Your task to perform on an android device: turn off smart reply in the gmail app Image 0: 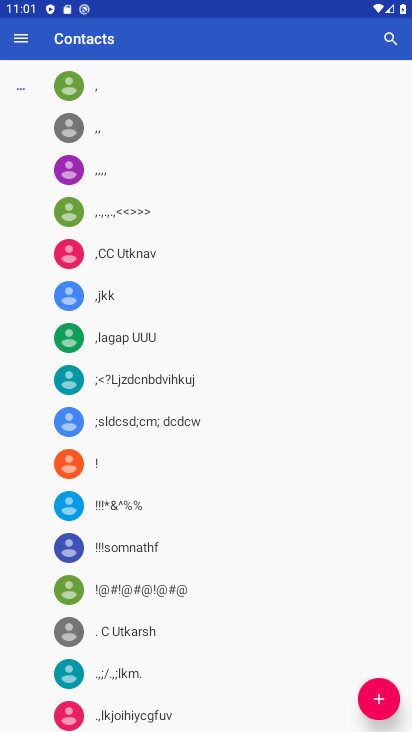
Step 0: press home button
Your task to perform on an android device: turn off smart reply in the gmail app Image 1: 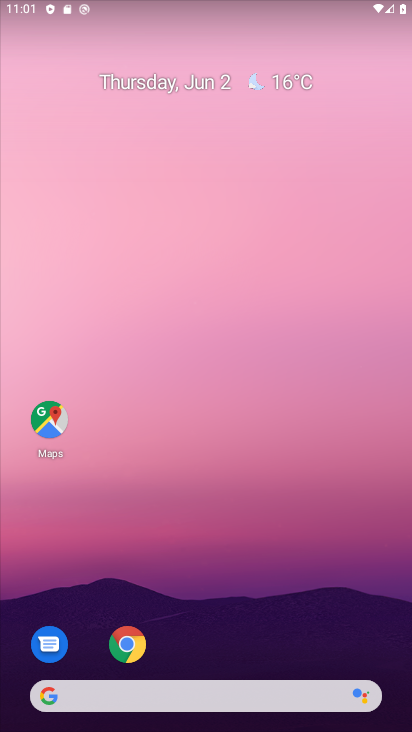
Step 1: drag from (170, 651) to (312, 232)
Your task to perform on an android device: turn off smart reply in the gmail app Image 2: 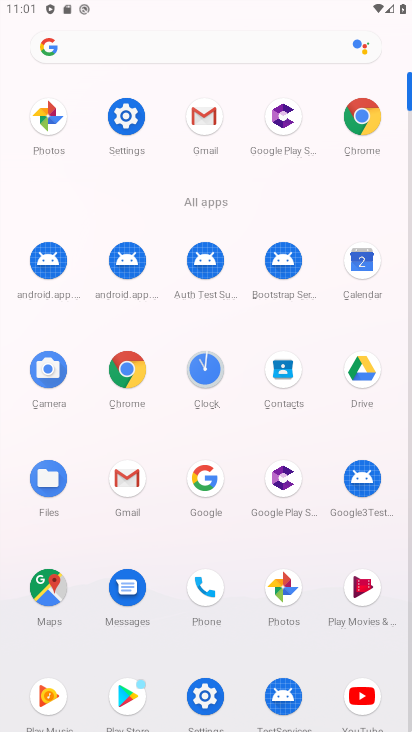
Step 2: click (217, 127)
Your task to perform on an android device: turn off smart reply in the gmail app Image 3: 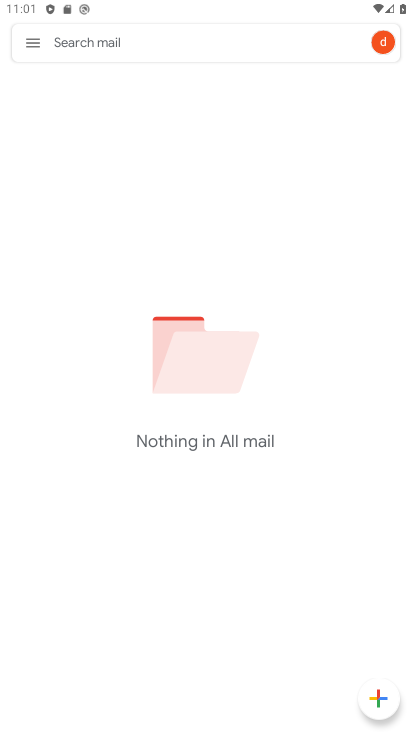
Step 3: click (36, 42)
Your task to perform on an android device: turn off smart reply in the gmail app Image 4: 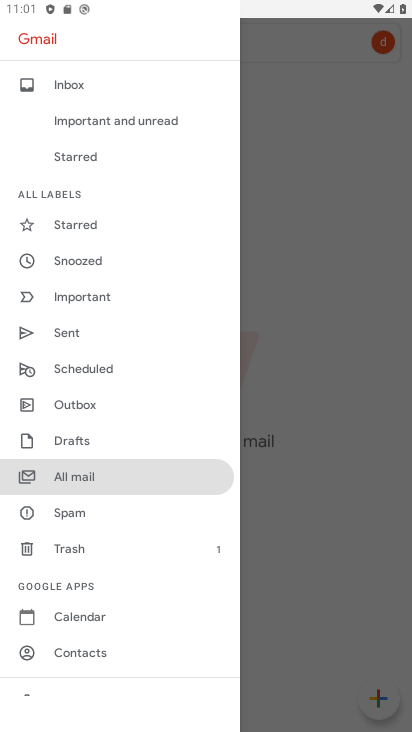
Step 4: drag from (81, 614) to (220, 166)
Your task to perform on an android device: turn off smart reply in the gmail app Image 5: 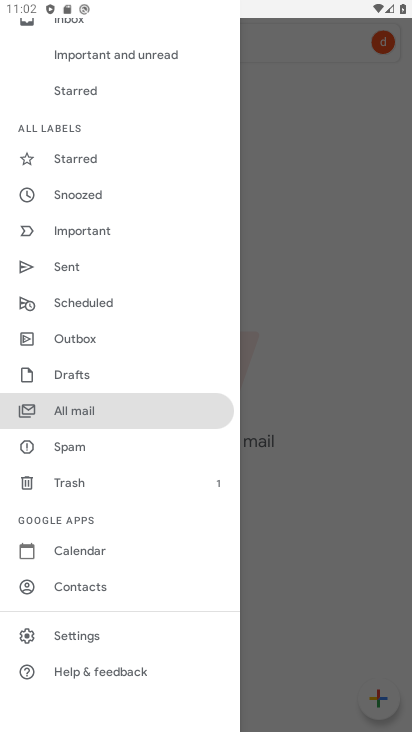
Step 5: click (53, 636)
Your task to perform on an android device: turn off smart reply in the gmail app Image 6: 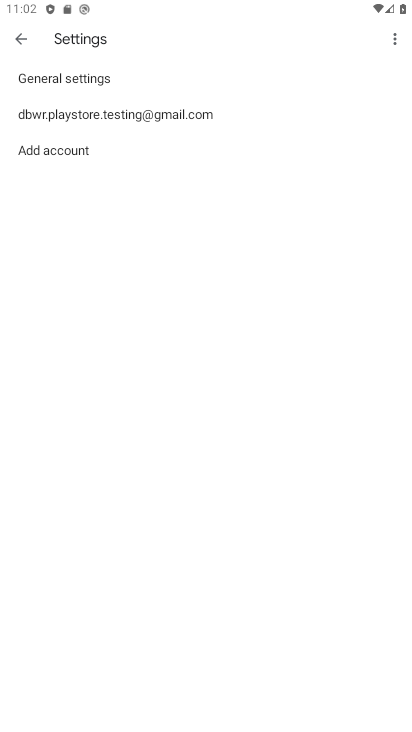
Step 6: click (98, 110)
Your task to perform on an android device: turn off smart reply in the gmail app Image 7: 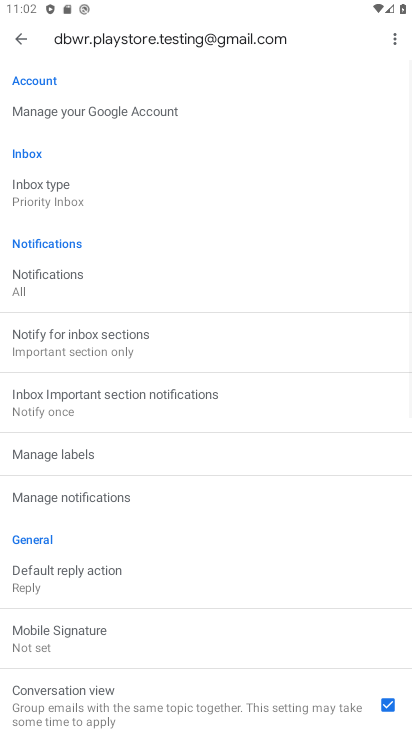
Step 7: drag from (109, 544) to (184, 157)
Your task to perform on an android device: turn off smart reply in the gmail app Image 8: 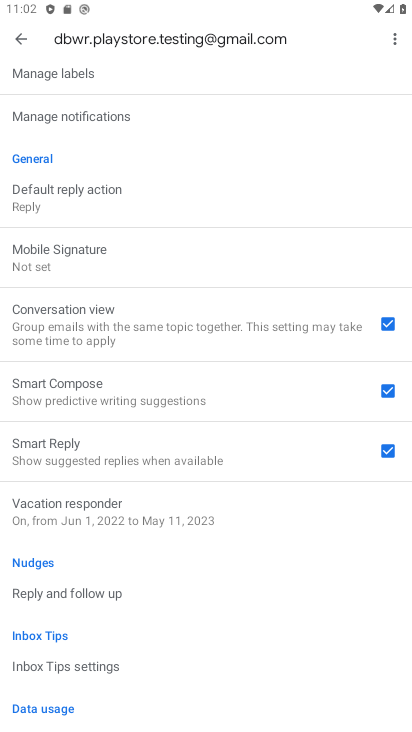
Step 8: drag from (91, 673) to (212, 278)
Your task to perform on an android device: turn off smart reply in the gmail app Image 9: 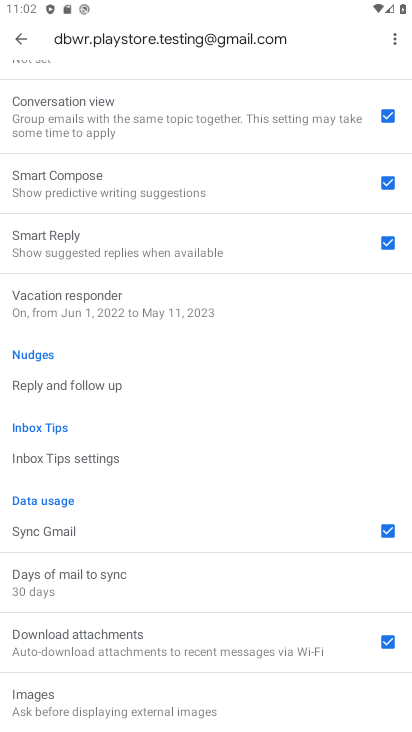
Step 9: click (391, 241)
Your task to perform on an android device: turn off smart reply in the gmail app Image 10: 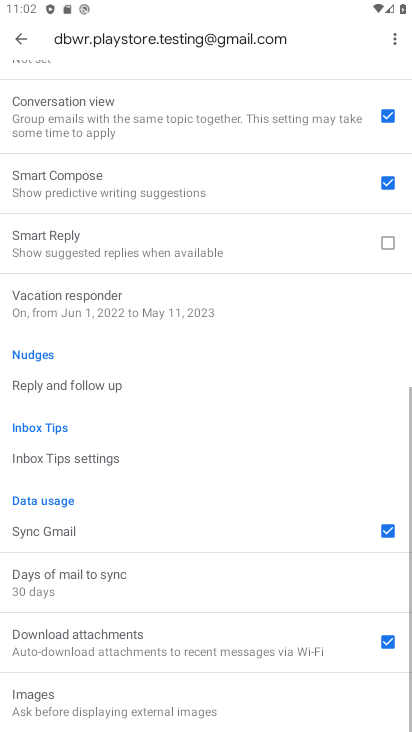
Step 10: task complete